Your task to perform on an android device: Go to Google maps Image 0: 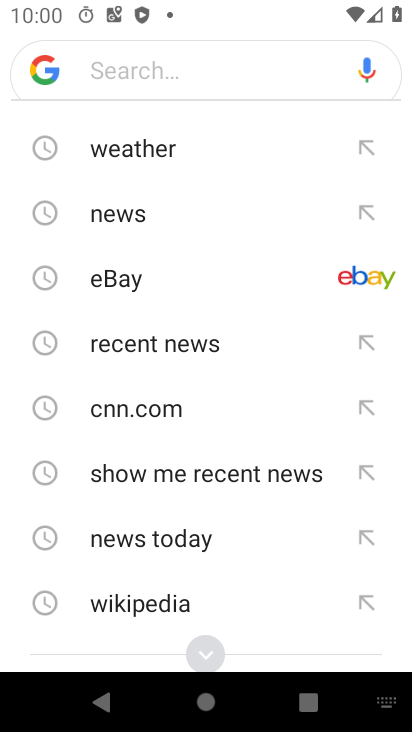
Step 0: press home button
Your task to perform on an android device: Go to Google maps Image 1: 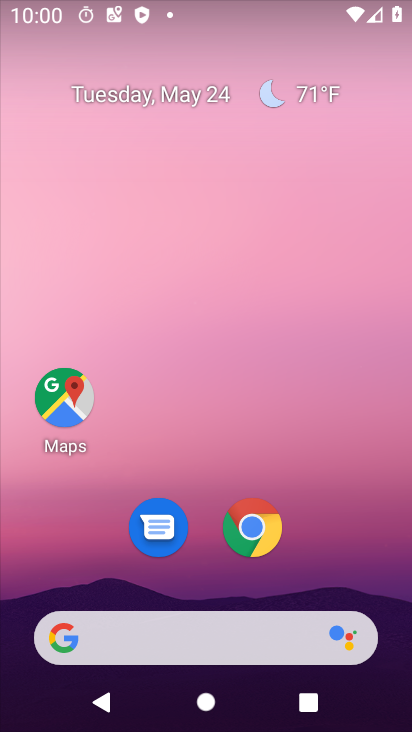
Step 1: click (68, 399)
Your task to perform on an android device: Go to Google maps Image 2: 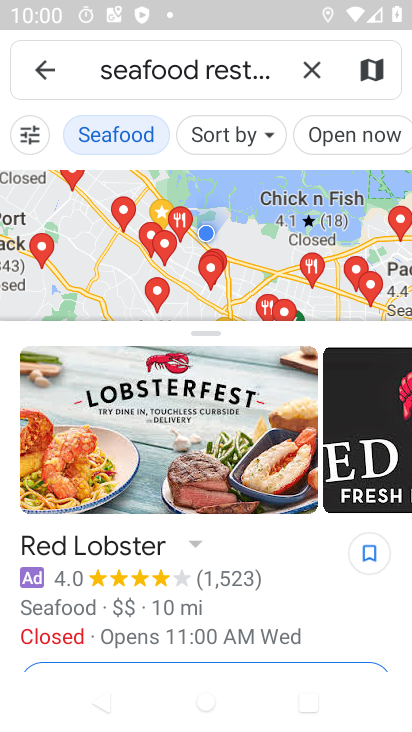
Step 2: task complete